Your task to perform on an android device: turn notification dots off Image 0: 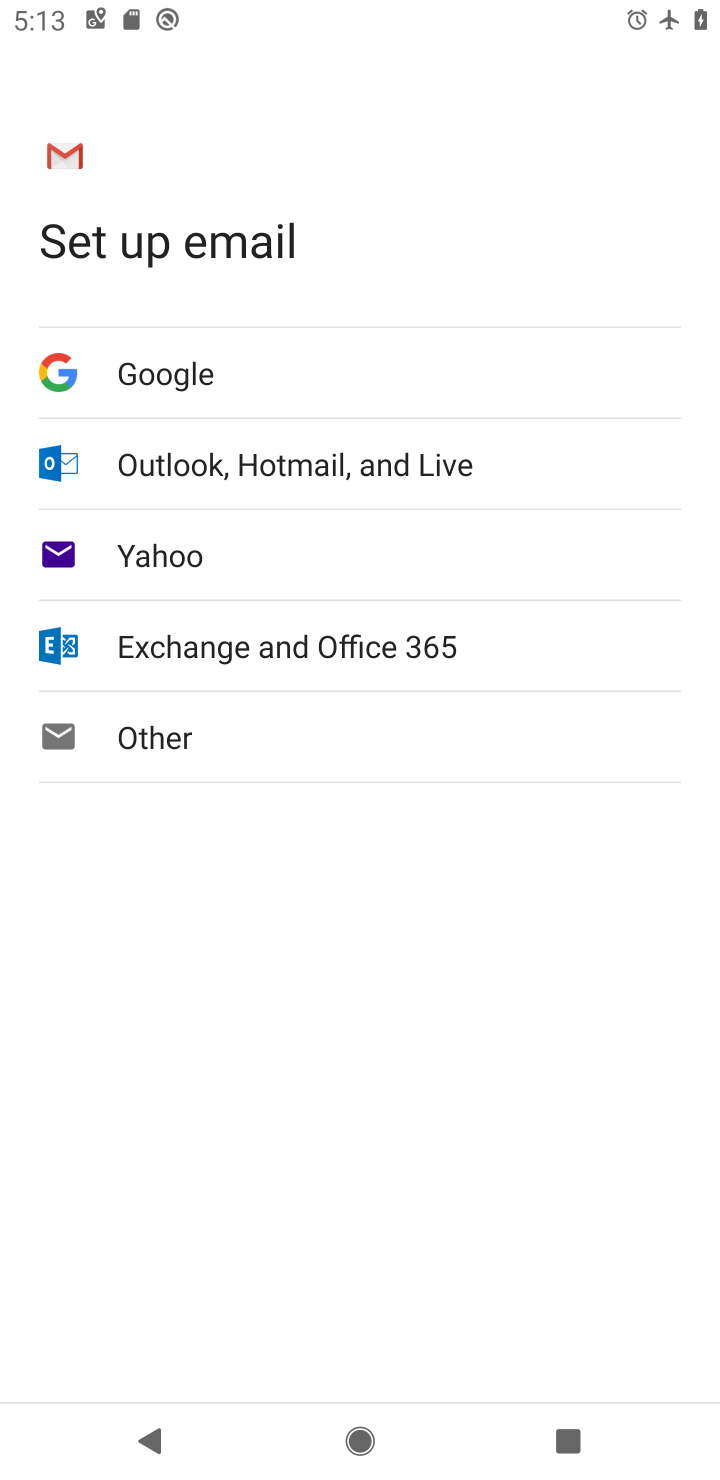
Step 0: press home button
Your task to perform on an android device: turn notification dots off Image 1: 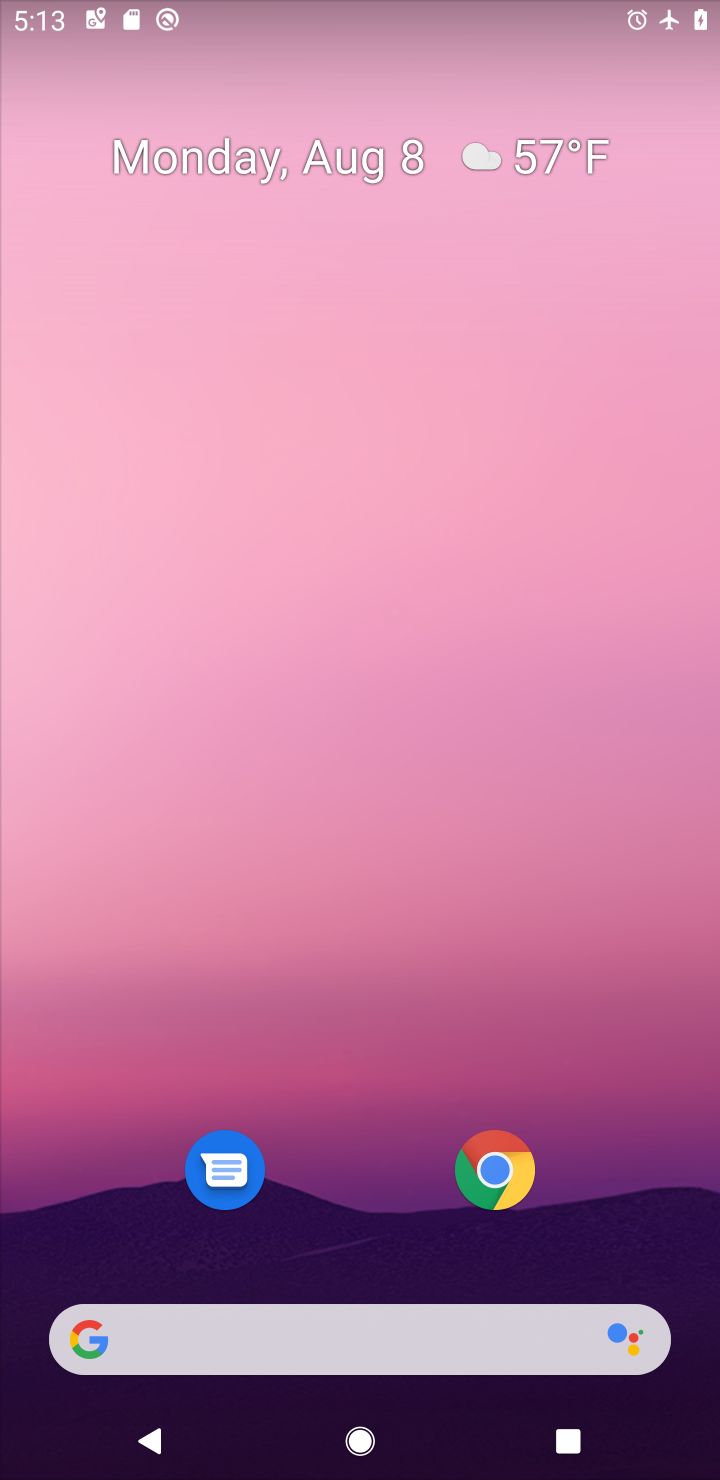
Step 1: drag from (358, 1183) to (406, 422)
Your task to perform on an android device: turn notification dots off Image 2: 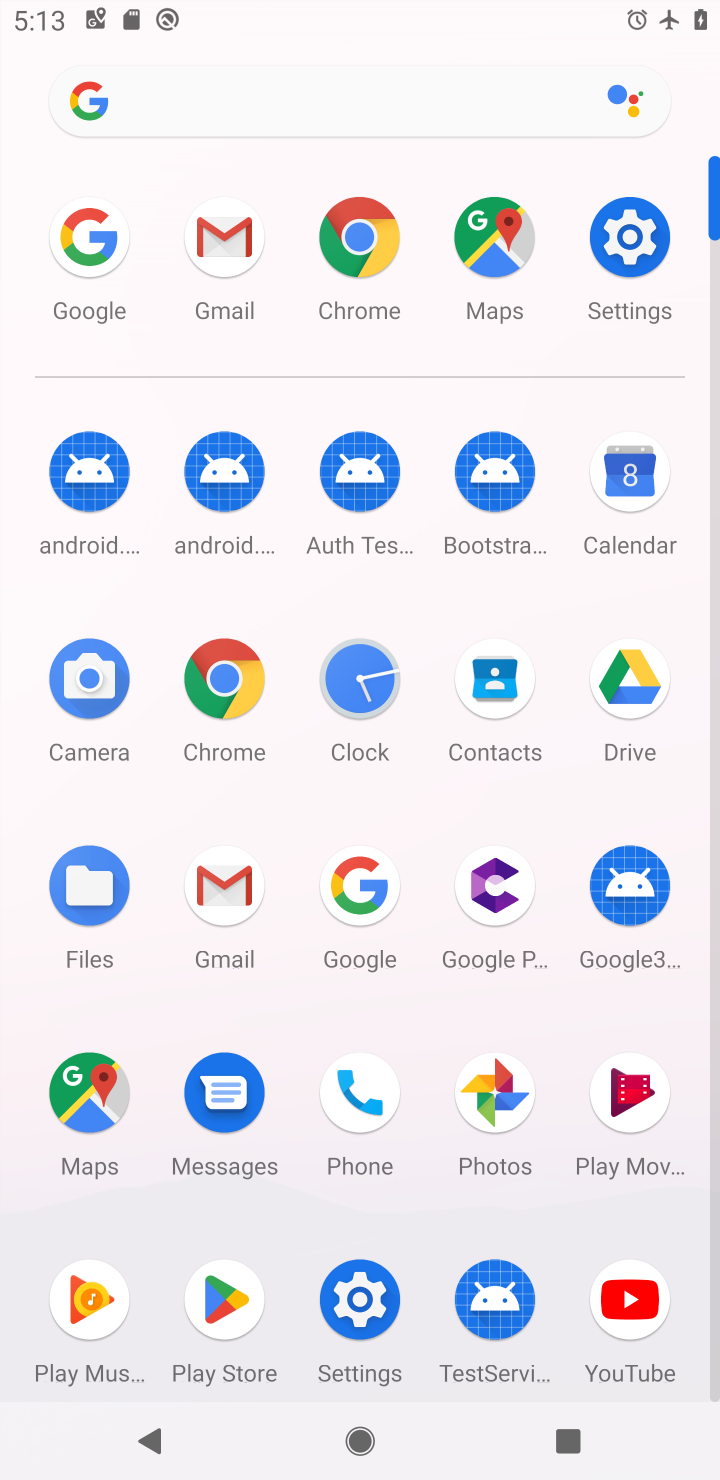
Step 2: click (652, 293)
Your task to perform on an android device: turn notification dots off Image 3: 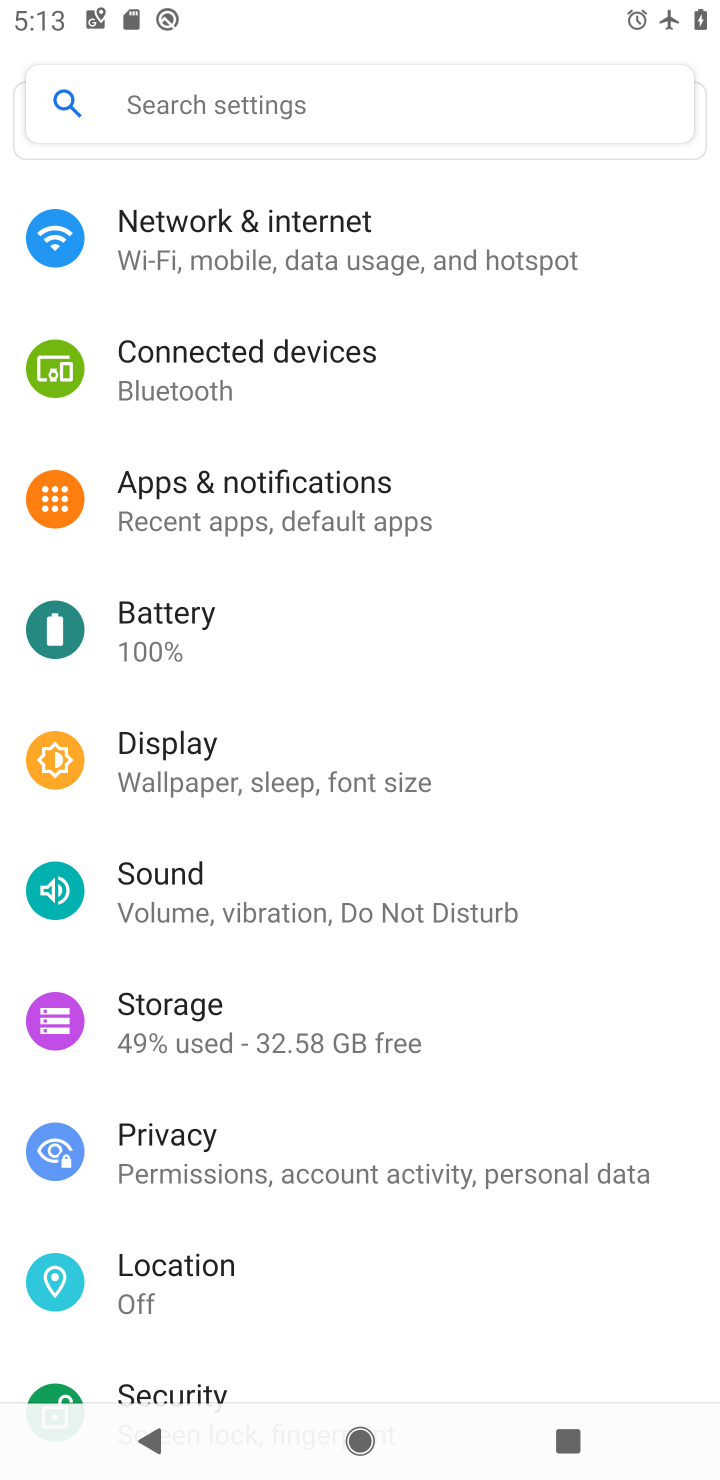
Step 3: click (373, 508)
Your task to perform on an android device: turn notification dots off Image 4: 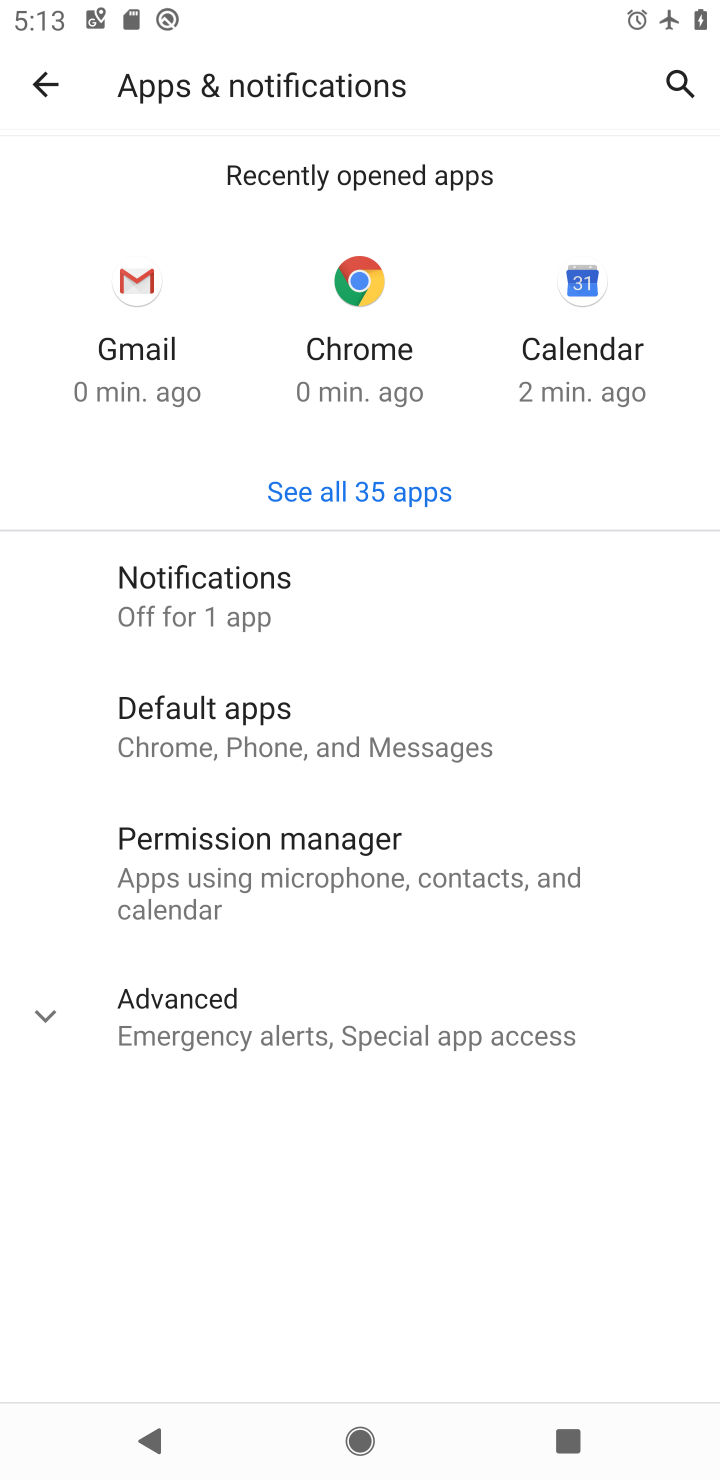
Step 4: click (214, 579)
Your task to perform on an android device: turn notification dots off Image 5: 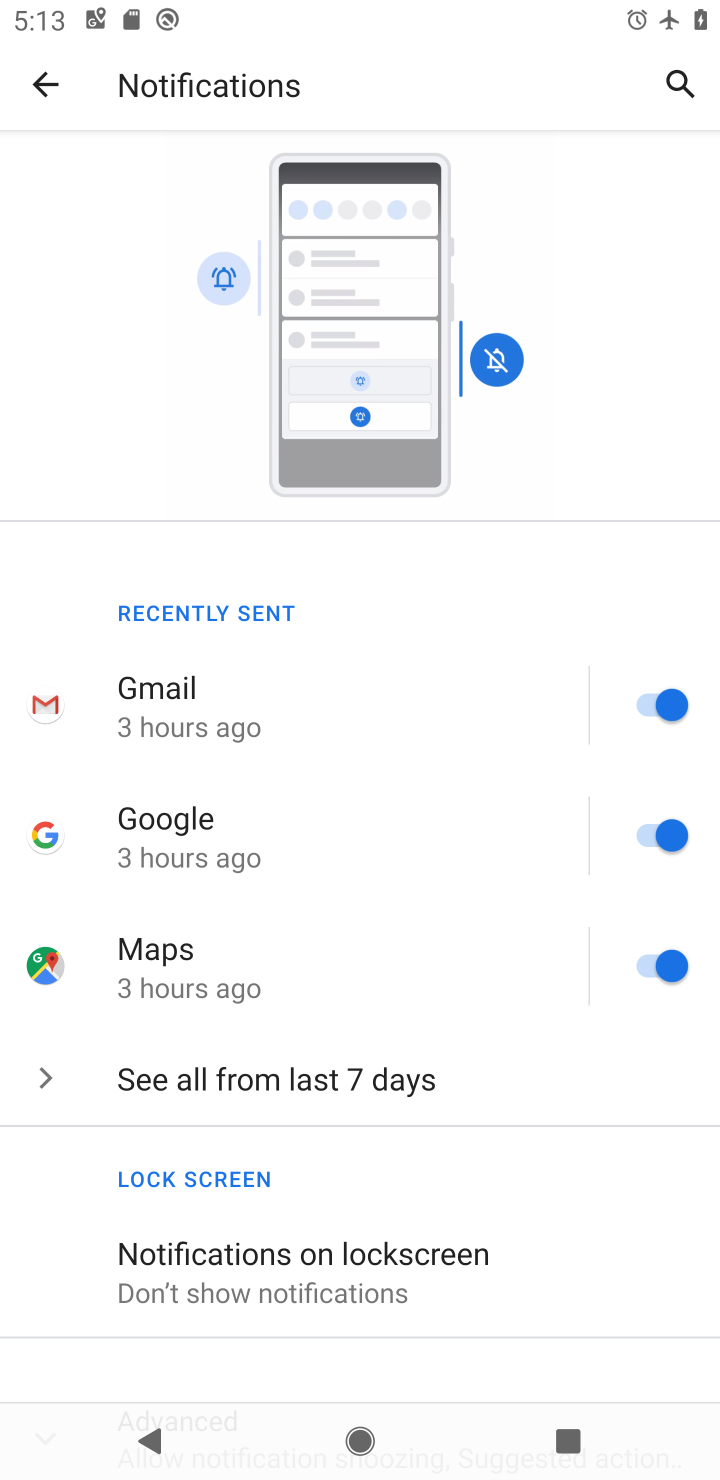
Step 5: drag from (398, 1156) to (404, 439)
Your task to perform on an android device: turn notification dots off Image 6: 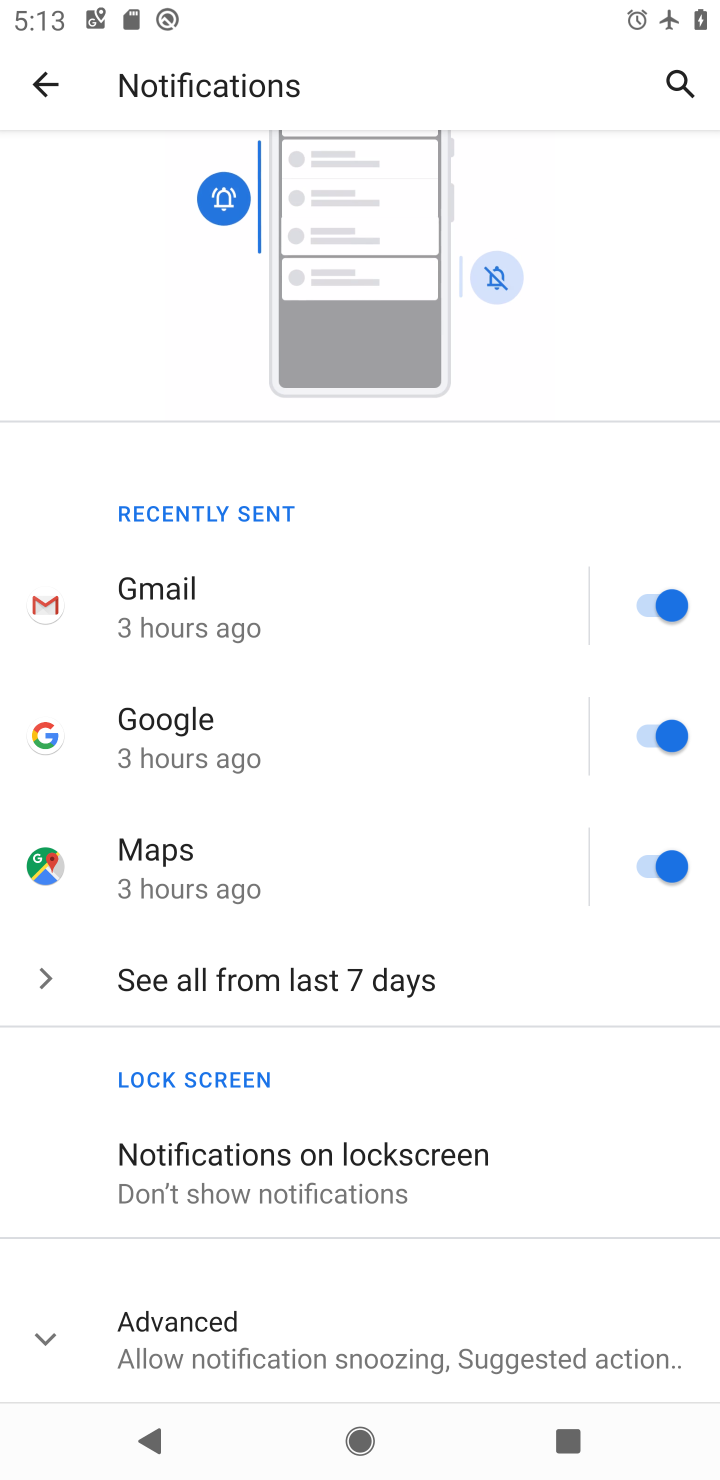
Step 6: drag from (438, 910) to (438, 521)
Your task to perform on an android device: turn notification dots off Image 7: 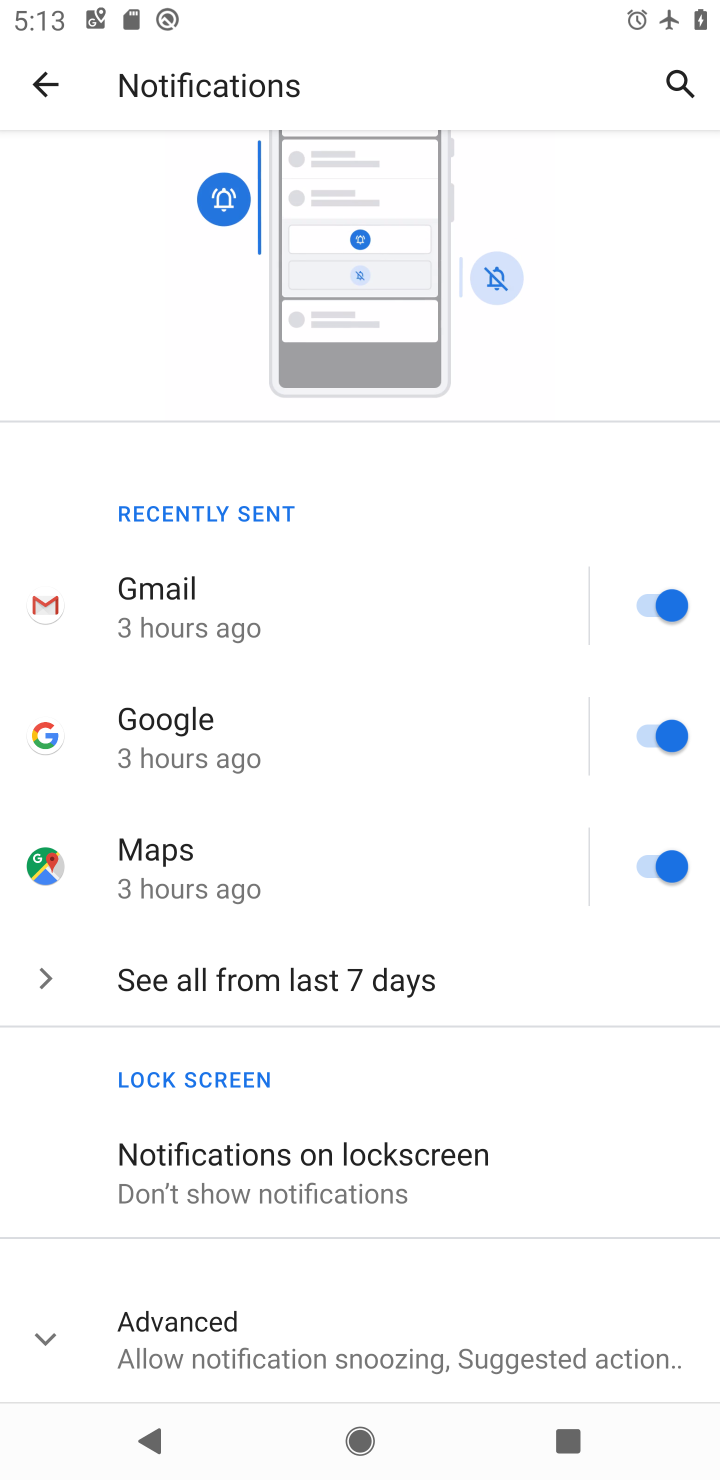
Step 7: drag from (347, 1030) to (347, 576)
Your task to perform on an android device: turn notification dots off Image 8: 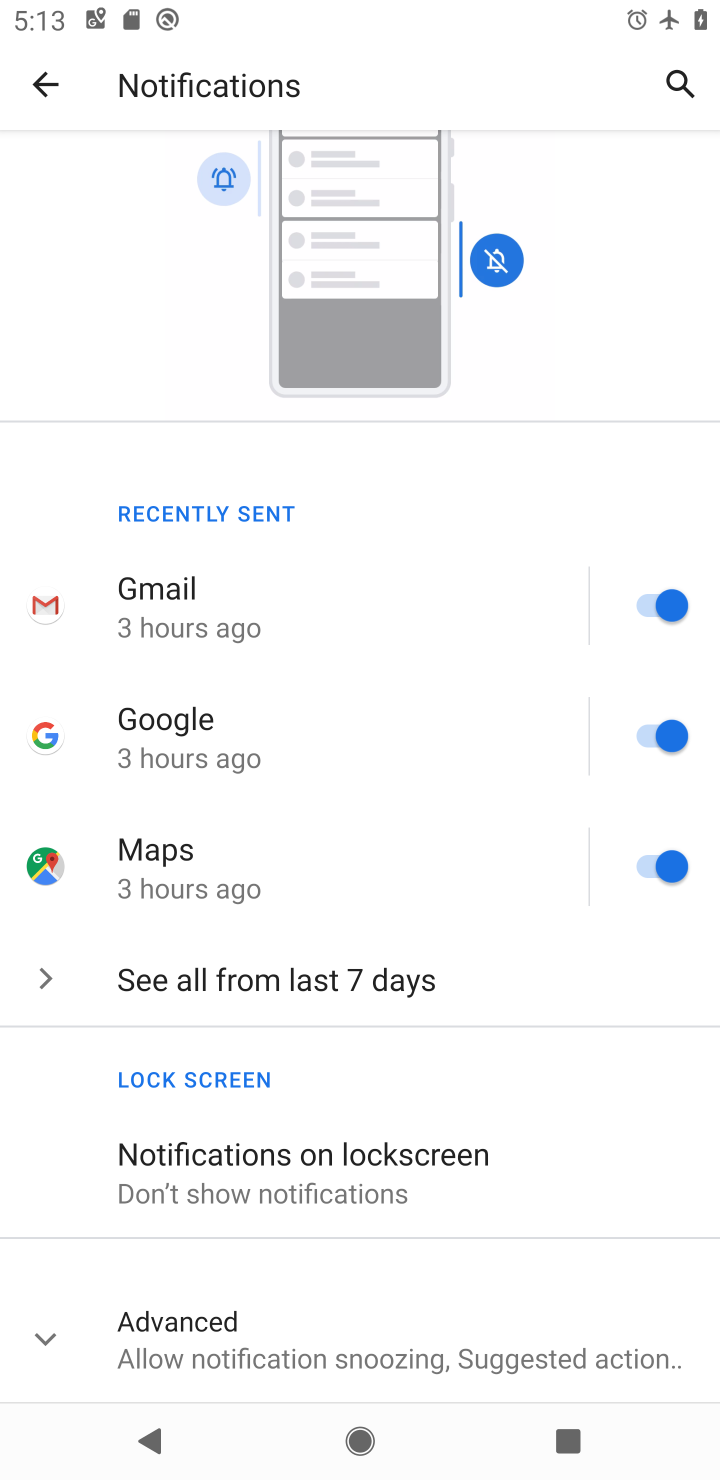
Step 8: click (157, 1351)
Your task to perform on an android device: turn notification dots off Image 9: 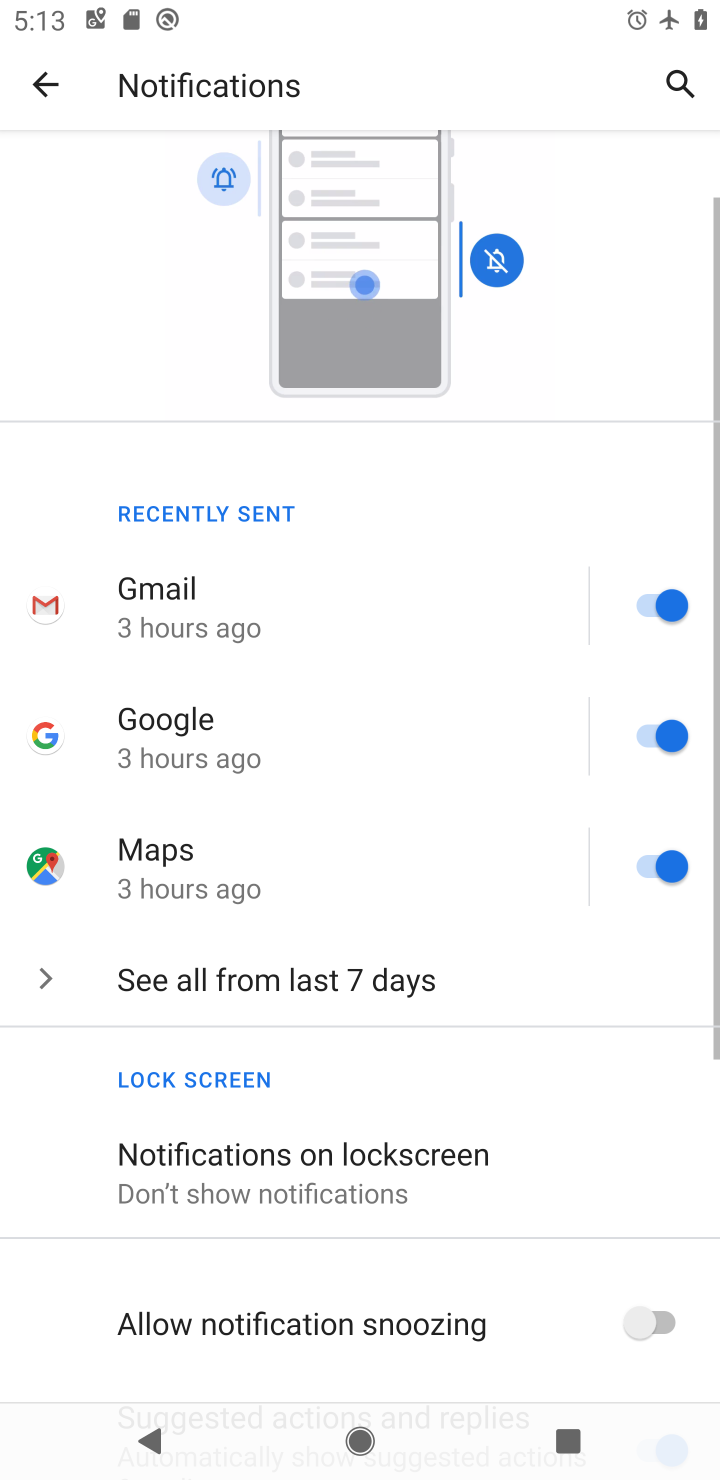
Step 9: click (411, 604)
Your task to perform on an android device: turn notification dots off Image 10: 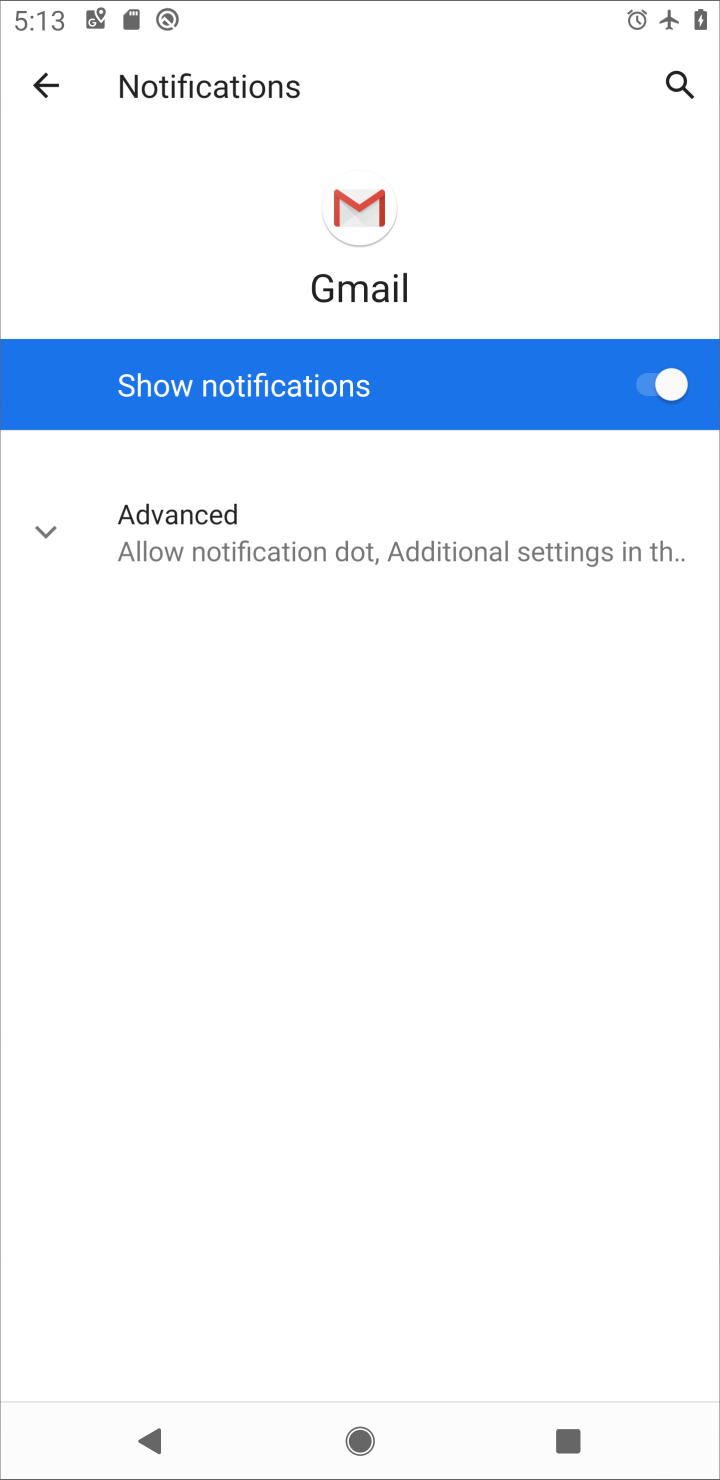
Step 10: drag from (439, 1257) to (463, 745)
Your task to perform on an android device: turn notification dots off Image 11: 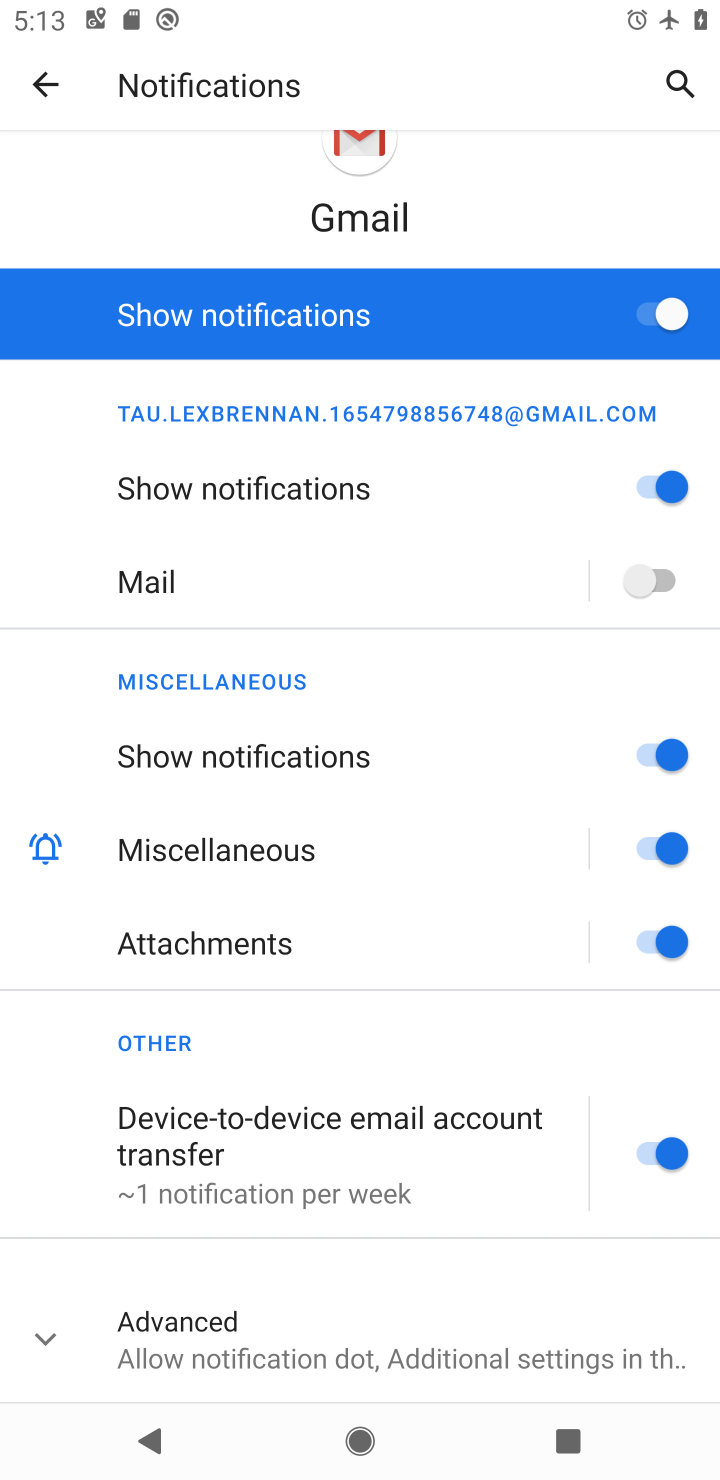
Step 11: drag from (428, 1197) to (428, 719)
Your task to perform on an android device: turn notification dots off Image 12: 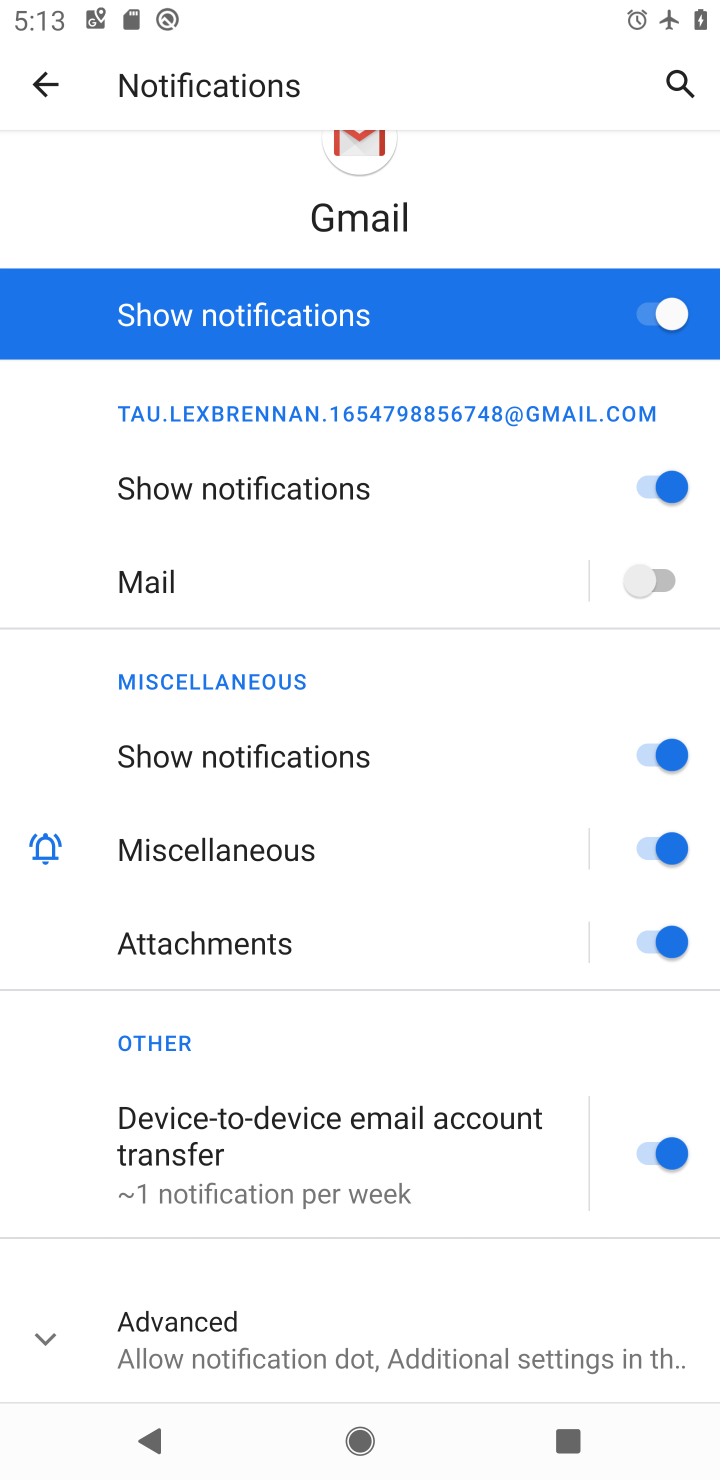
Step 12: drag from (337, 650) to (354, 1278)
Your task to perform on an android device: turn notification dots off Image 13: 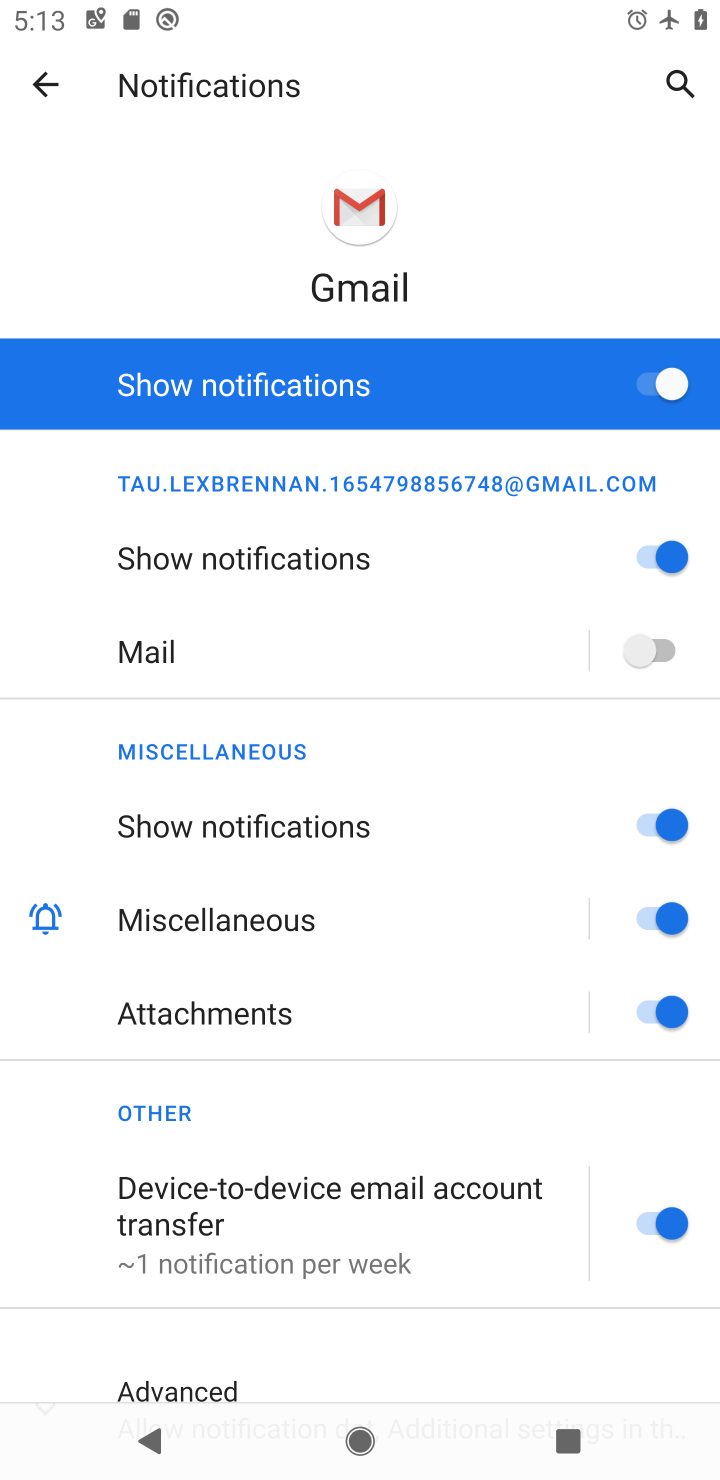
Step 13: press home button
Your task to perform on an android device: turn notification dots off Image 14: 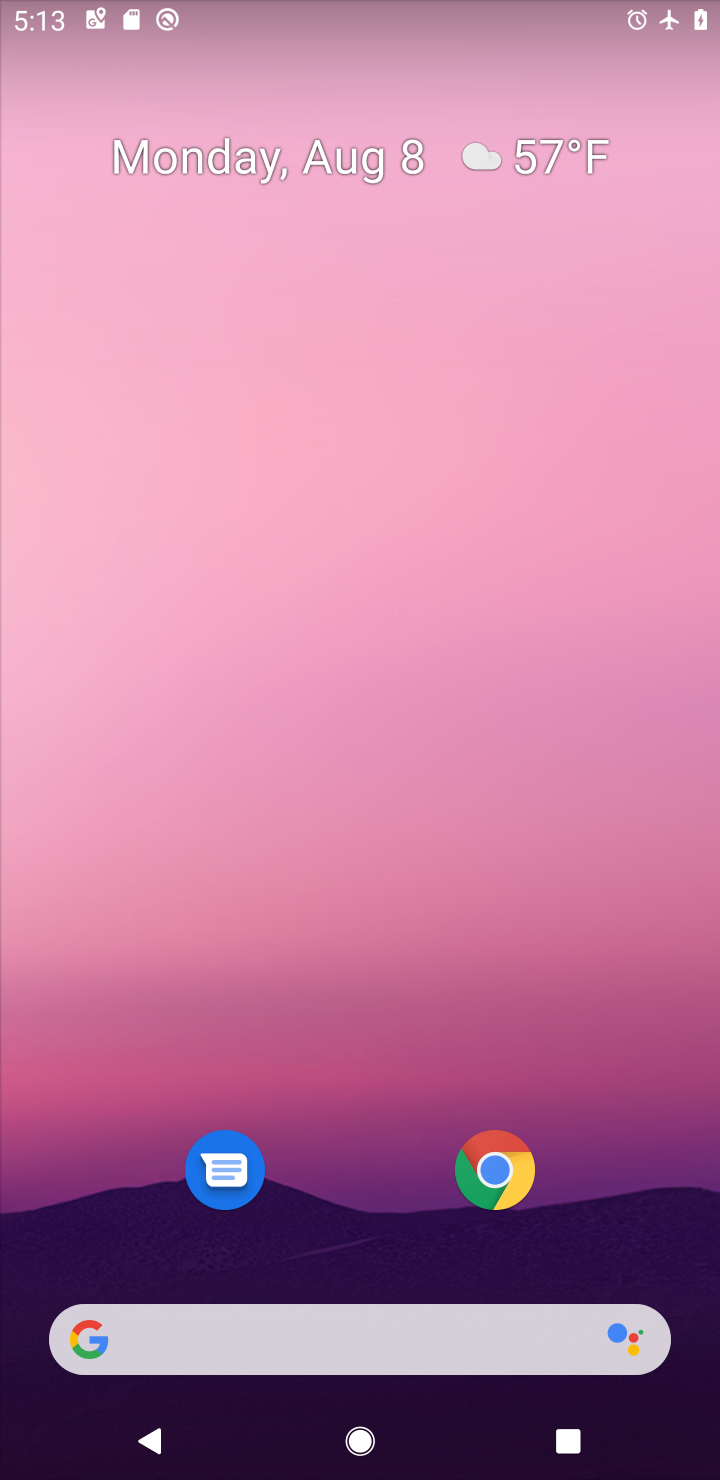
Step 14: drag from (366, 943) to (366, 474)
Your task to perform on an android device: turn notification dots off Image 15: 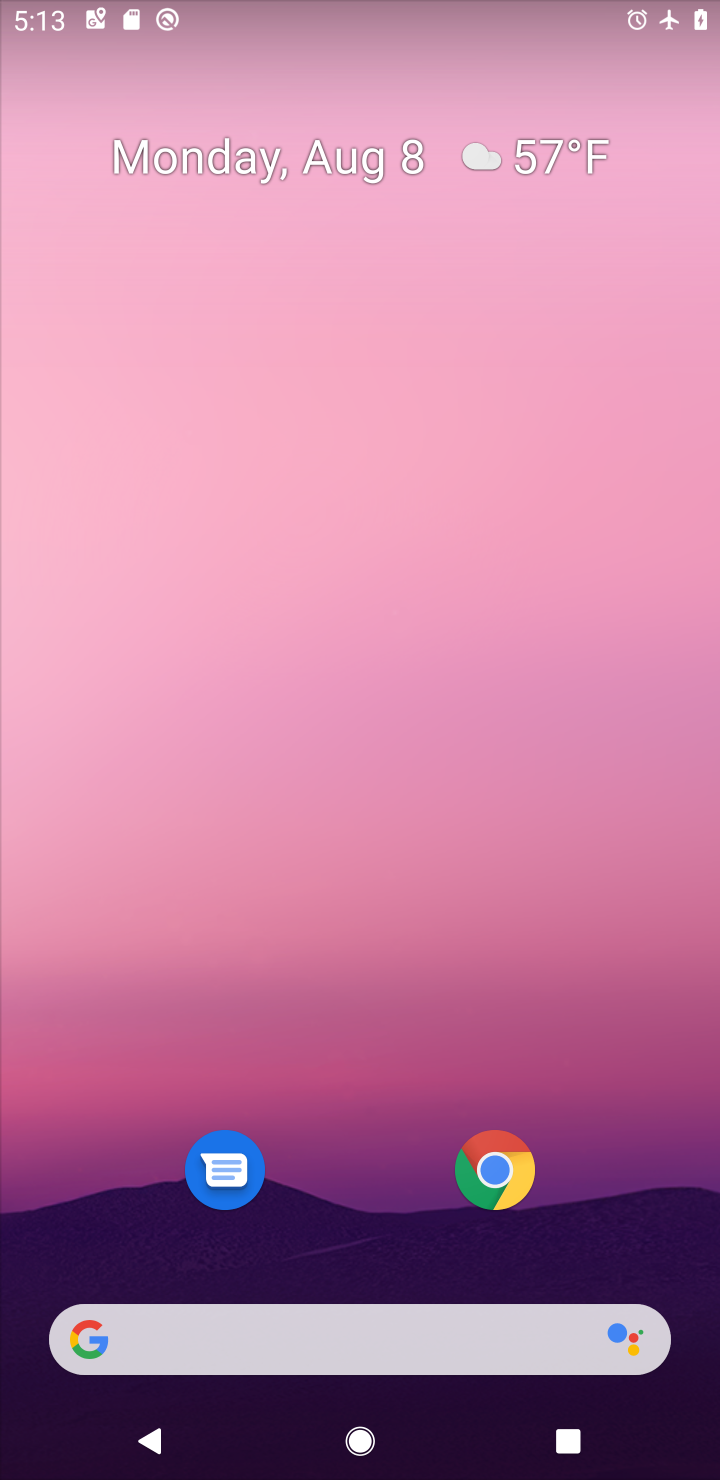
Step 15: drag from (368, 1111) to (376, 393)
Your task to perform on an android device: turn notification dots off Image 16: 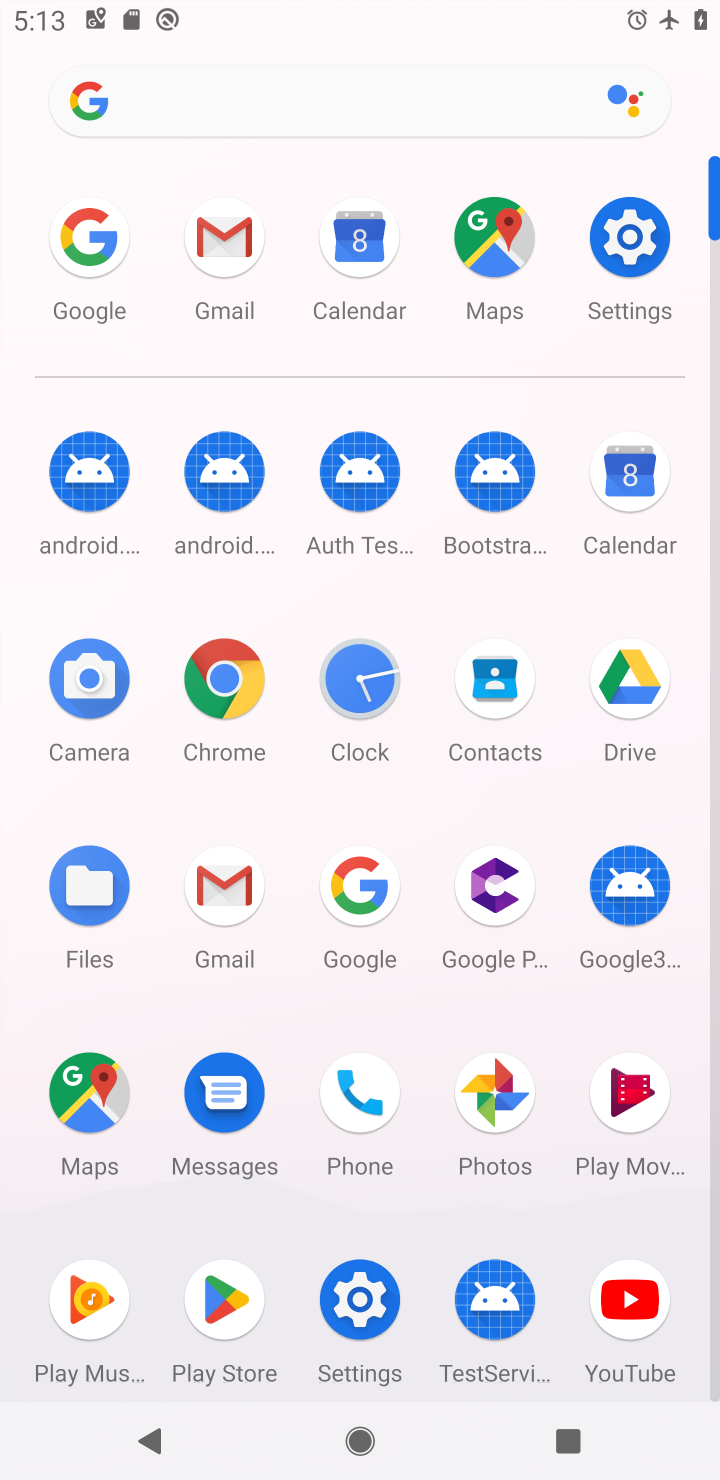
Step 16: click (579, 284)
Your task to perform on an android device: turn notification dots off Image 17: 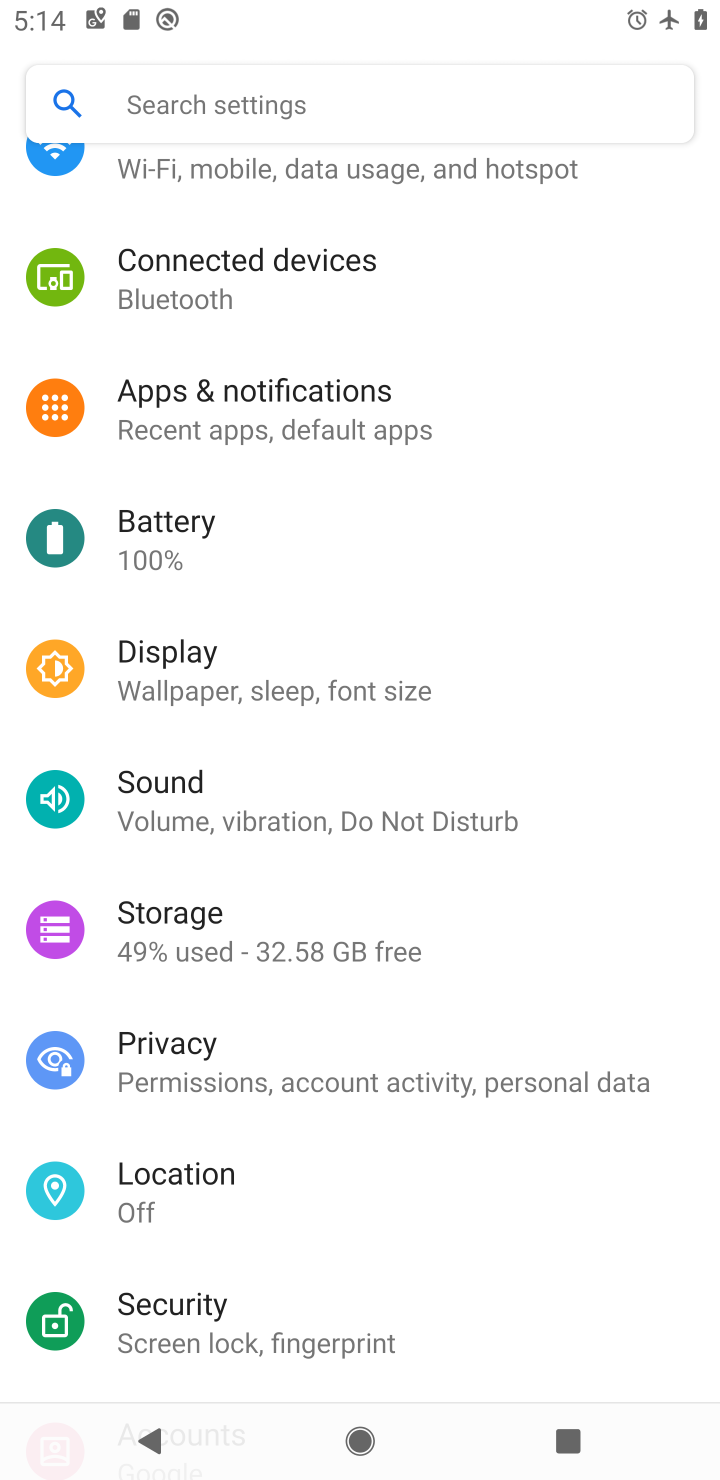
Step 17: drag from (384, 388) to (384, 932)
Your task to perform on an android device: turn notification dots off Image 18: 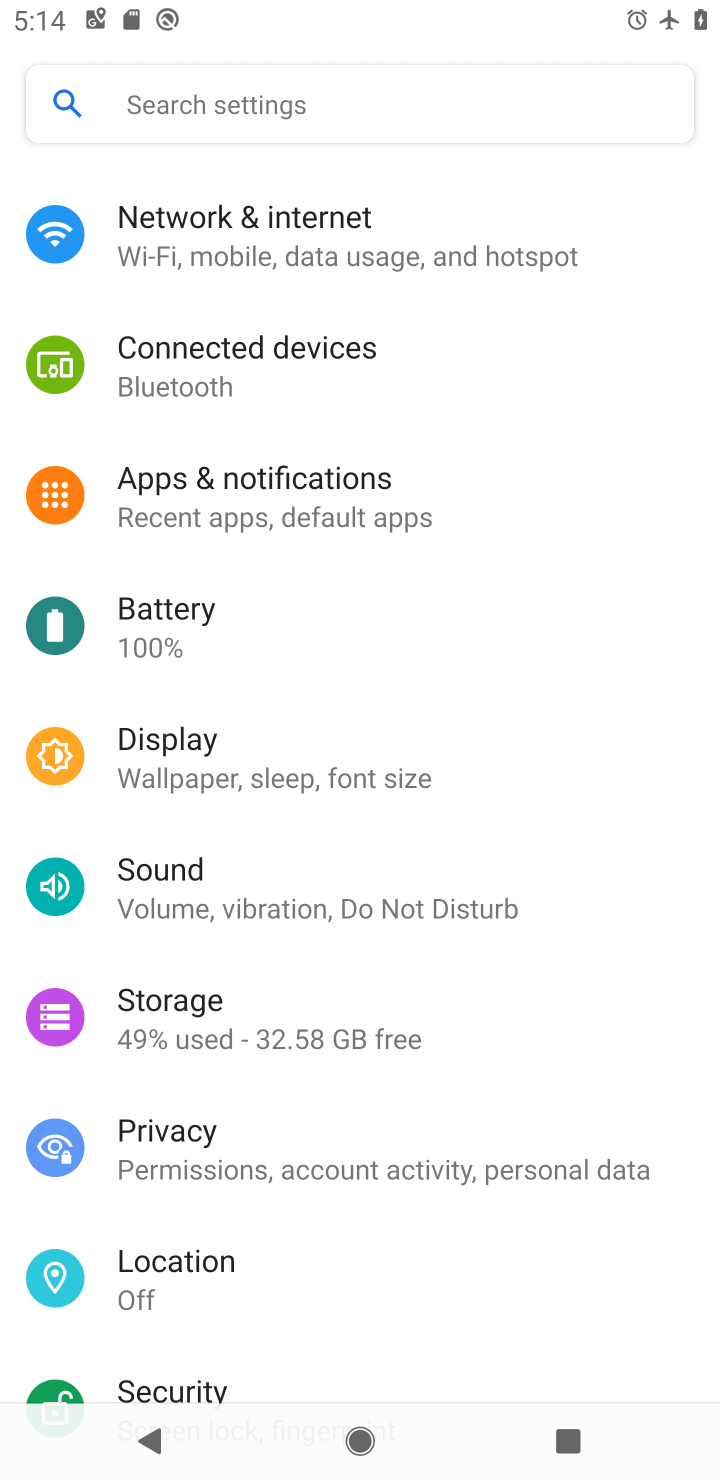
Step 18: click (314, 515)
Your task to perform on an android device: turn notification dots off Image 19: 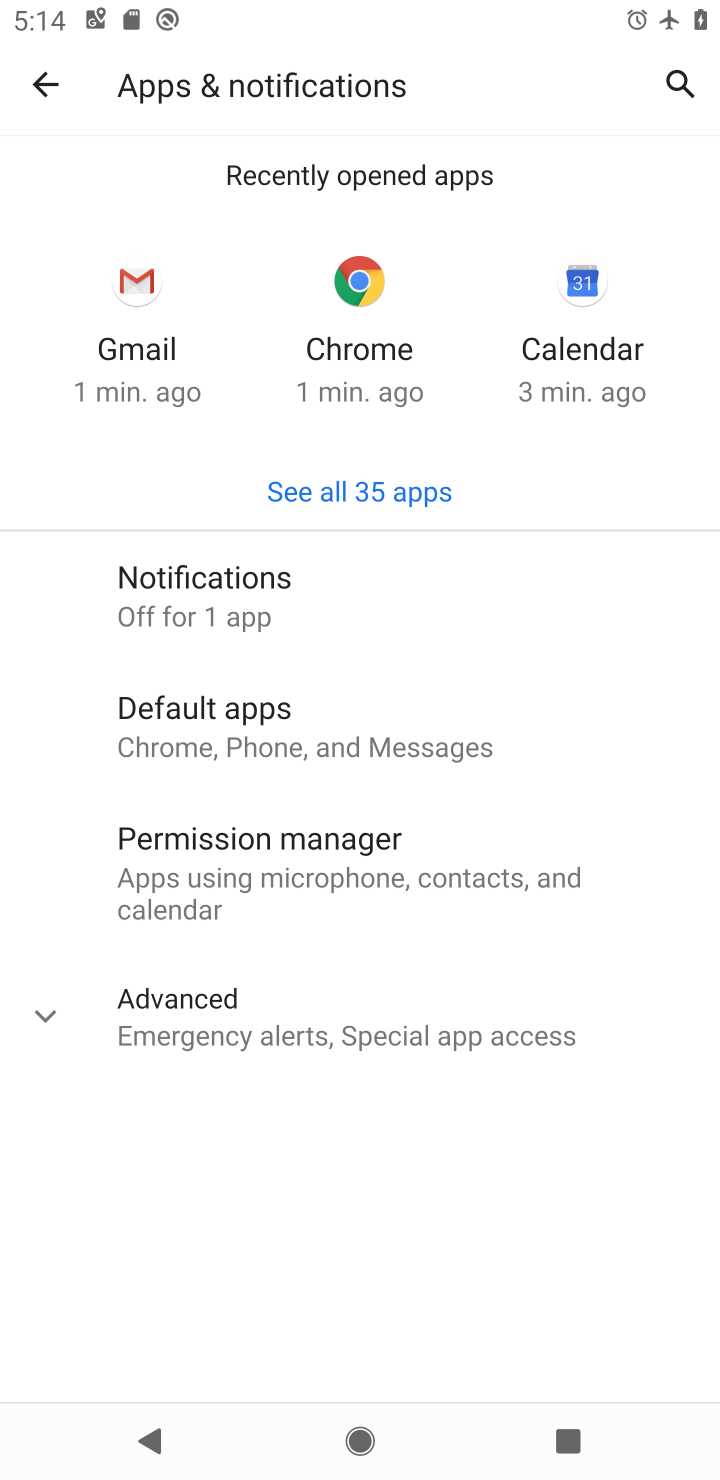
Step 19: click (297, 585)
Your task to perform on an android device: turn notification dots off Image 20: 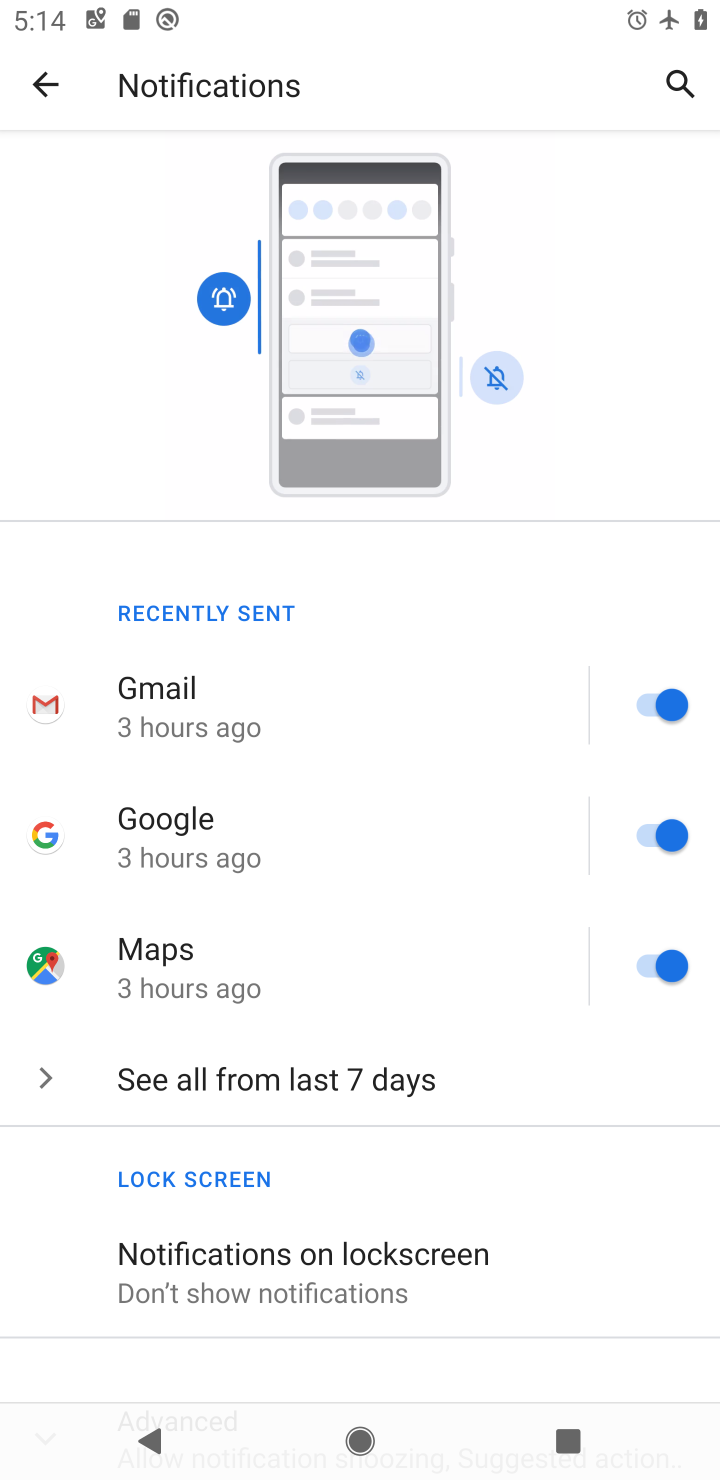
Step 20: drag from (354, 884) to (354, 606)
Your task to perform on an android device: turn notification dots off Image 21: 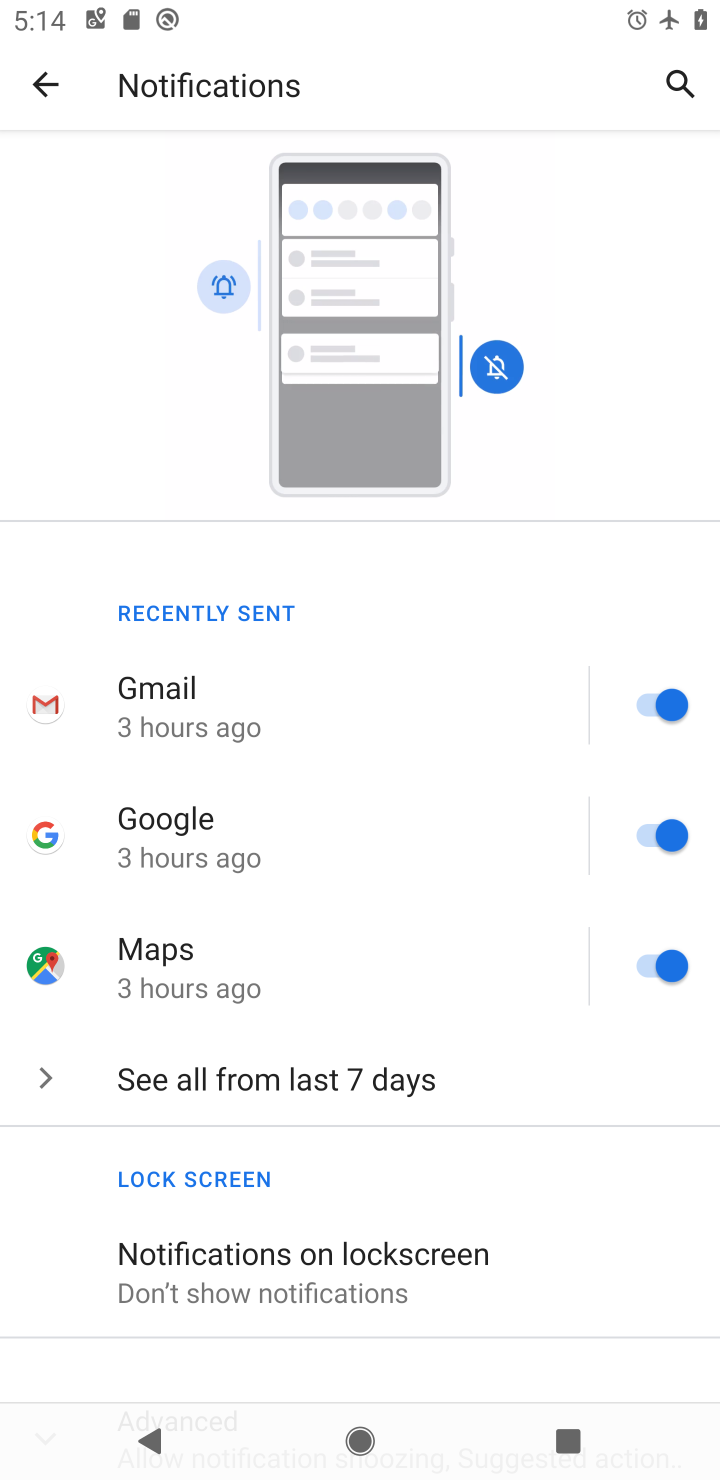
Step 21: drag from (378, 1112) to (355, 466)
Your task to perform on an android device: turn notification dots off Image 22: 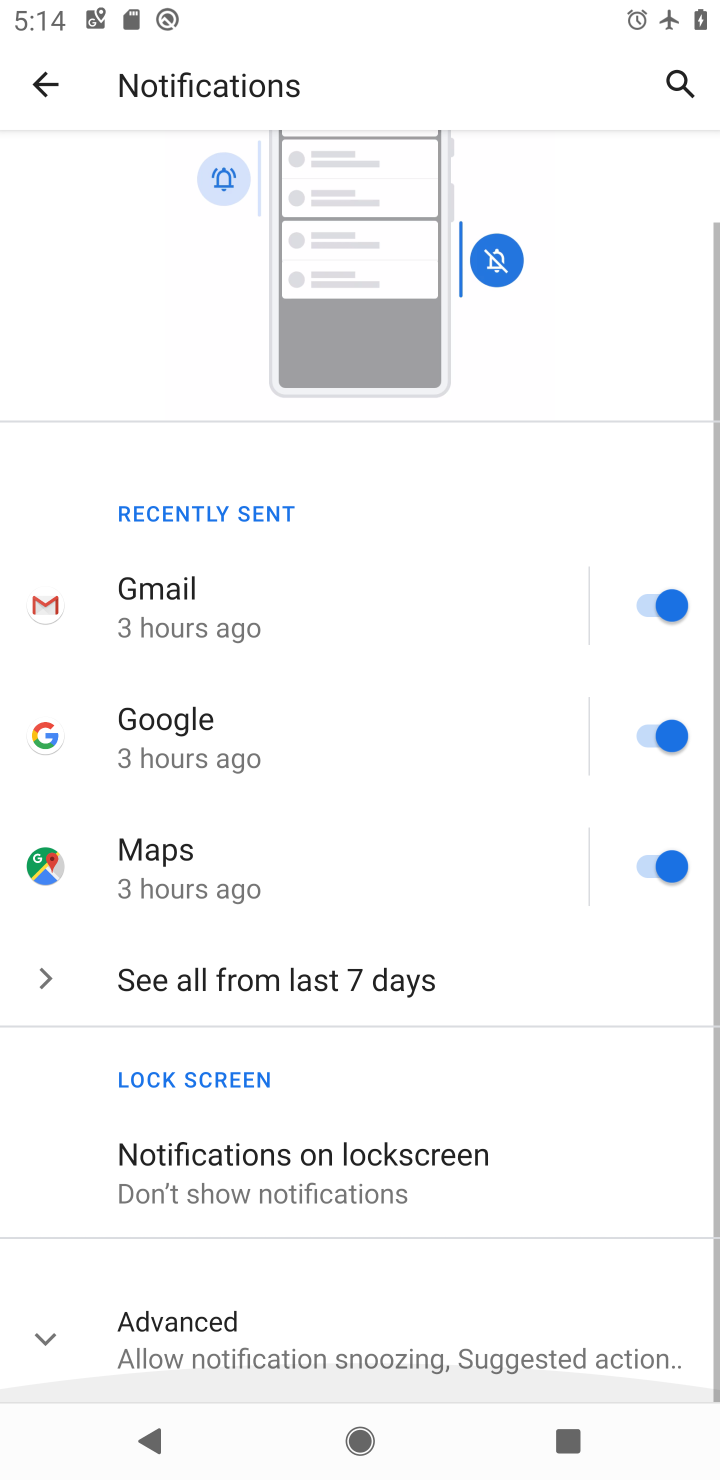
Step 22: click (359, 1325)
Your task to perform on an android device: turn notification dots off Image 23: 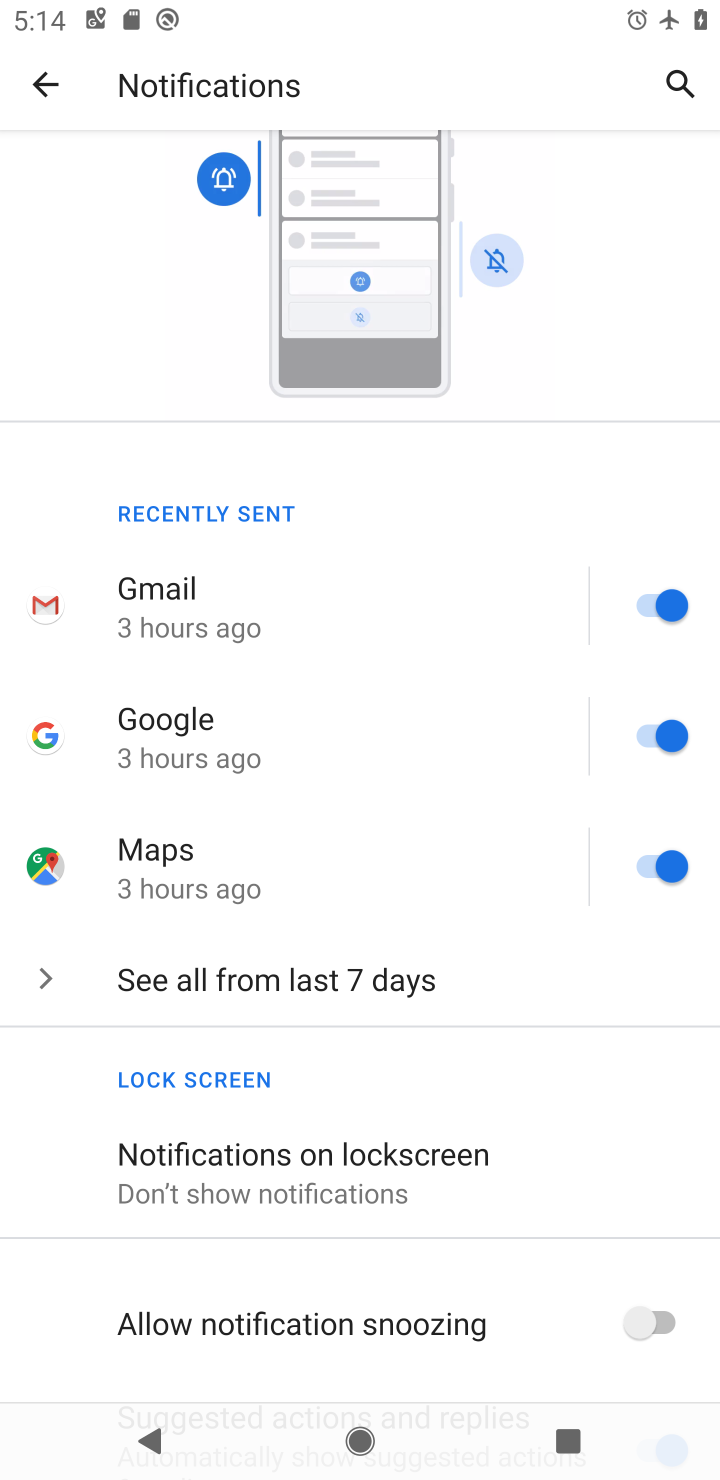
Step 23: drag from (407, 1154) to (398, 628)
Your task to perform on an android device: turn notification dots off Image 24: 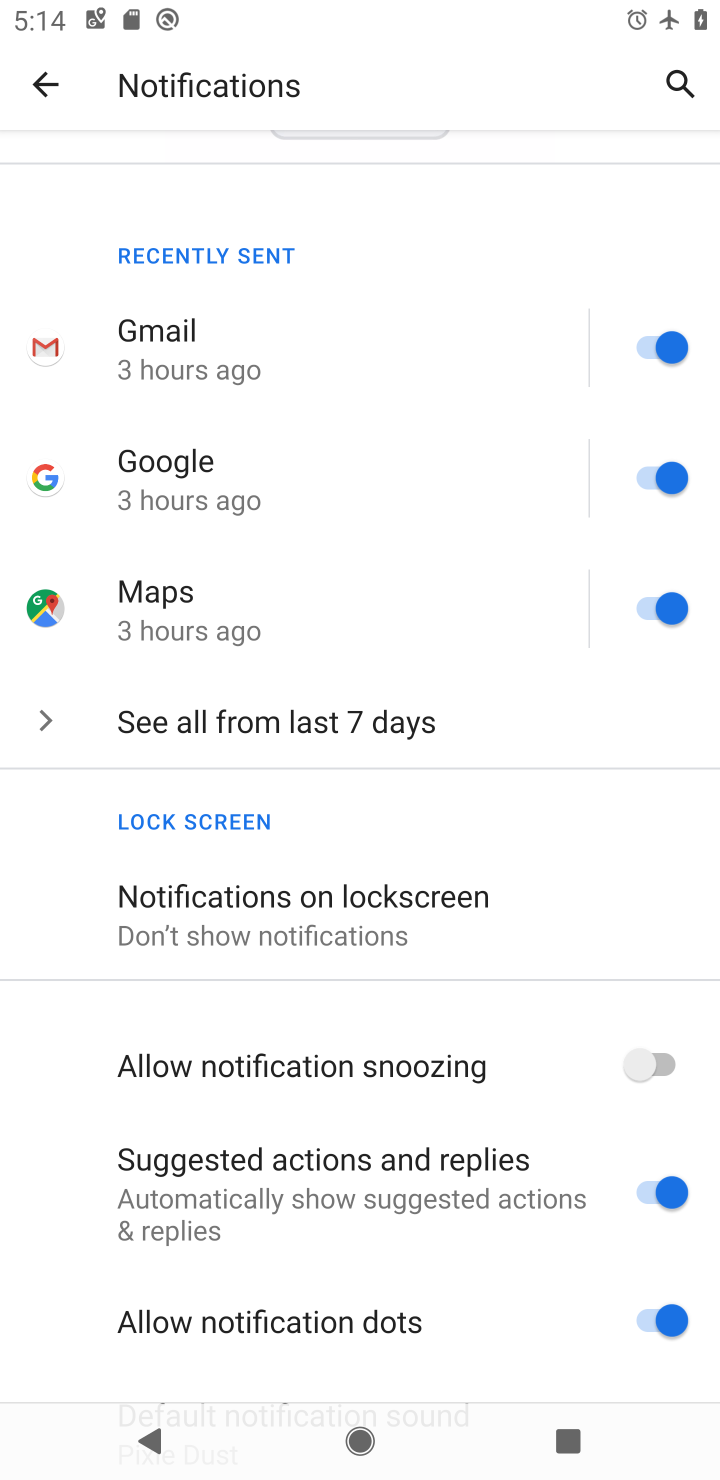
Step 24: click (640, 1324)
Your task to perform on an android device: turn notification dots off Image 25: 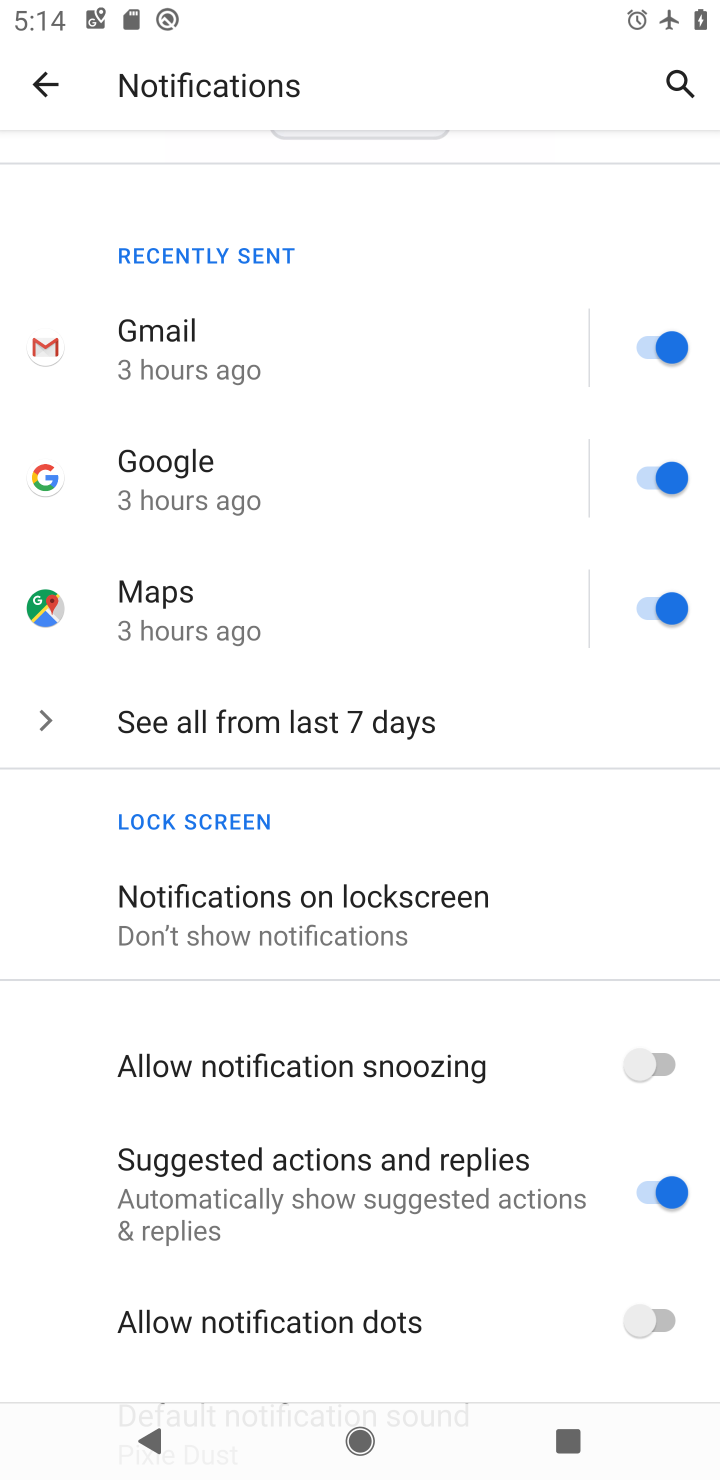
Step 25: task complete